Your task to perform on an android device: turn on data saver in the chrome app Image 0: 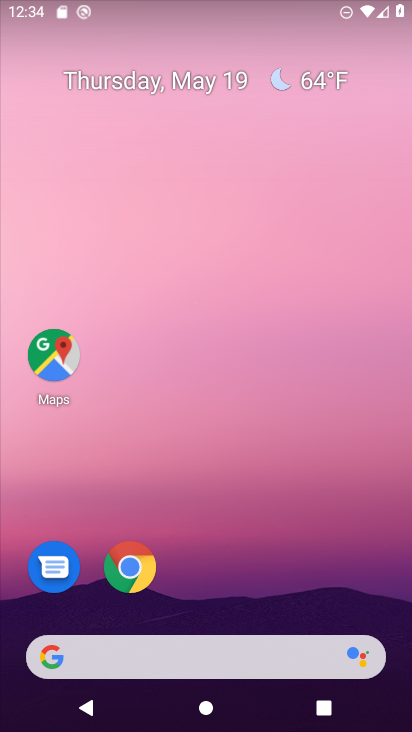
Step 0: click (140, 563)
Your task to perform on an android device: turn on data saver in the chrome app Image 1: 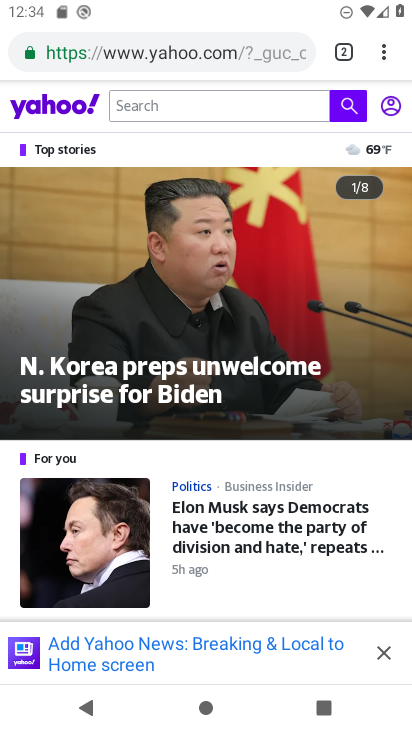
Step 1: drag from (381, 54) to (232, 616)
Your task to perform on an android device: turn on data saver in the chrome app Image 2: 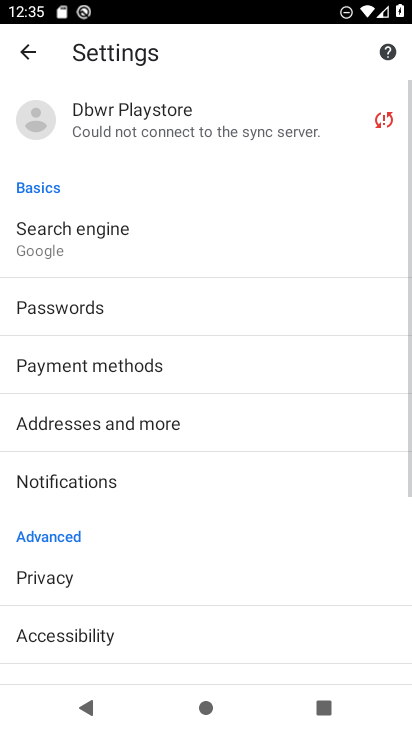
Step 2: drag from (147, 651) to (150, 340)
Your task to perform on an android device: turn on data saver in the chrome app Image 3: 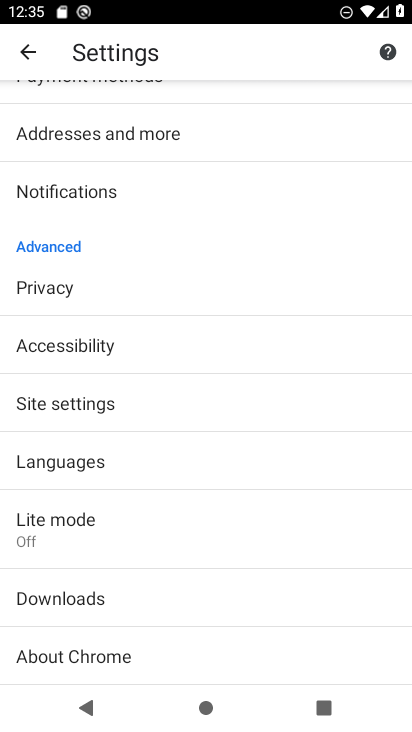
Step 3: click (103, 543)
Your task to perform on an android device: turn on data saver in the chrome app Image 4: 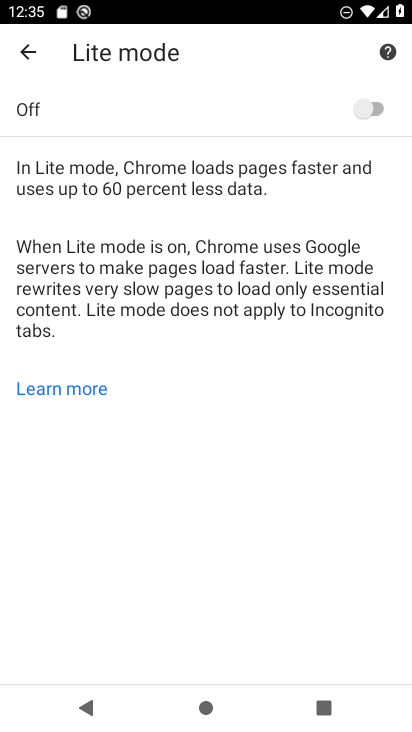
Step 4: click (367, 104)
Your task to perform on an android device: turn on data saver in the chrome app Image 5: 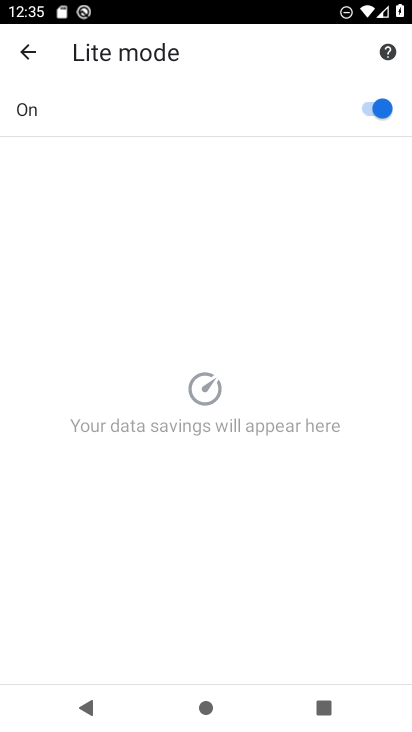
Step 5: task complete